Your task to perform on an android device: What's the weather going to be tomorrow? Image 0: 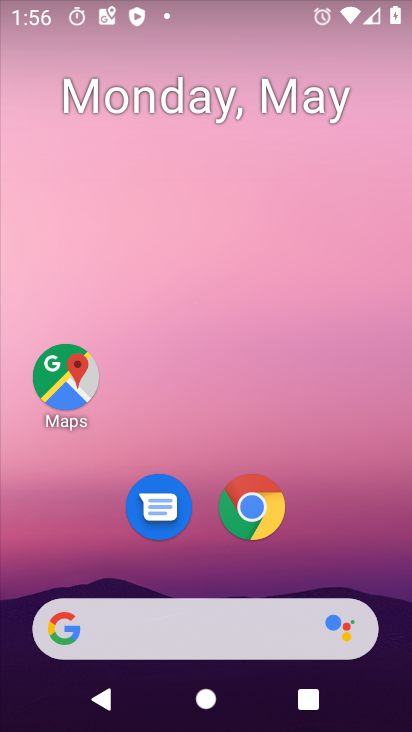
Step 0: drag from (234, 726) to (233, 9)
Your task to perform on an android device: What's the weather going to be tomorrow? Image 1: 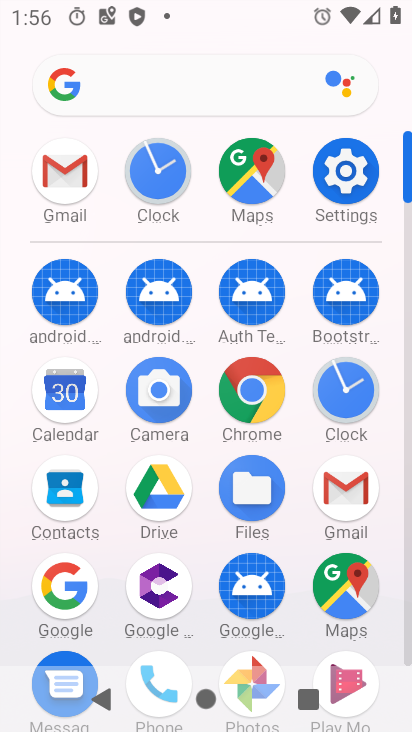
Step 1: click (68, 588)
Your task to perform on an android device: What's the weather going to be tomorrow? Image 2: 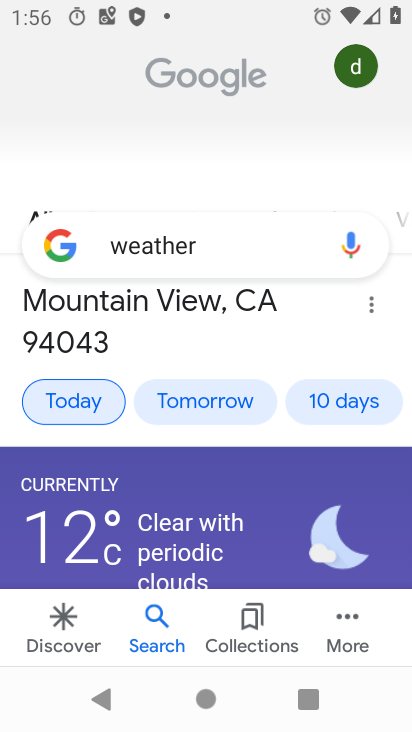
Step 2: click (187, 399)
Your task to perform on an android device: What's the weather going to be tomorrow? Image 3: 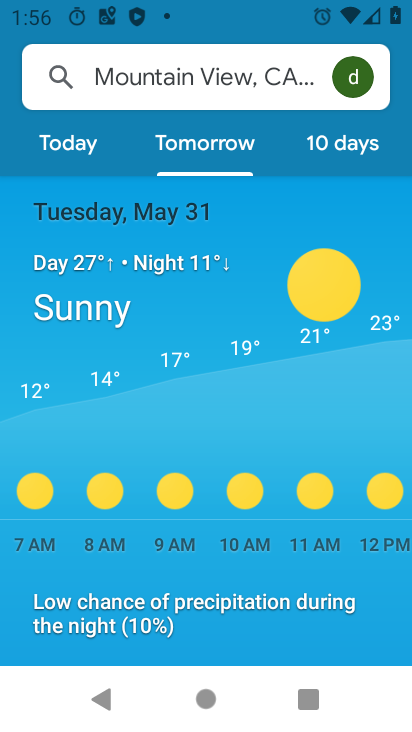
Step 3: task complete